Your task to perform on an android device: What's the weather today? Image 0: 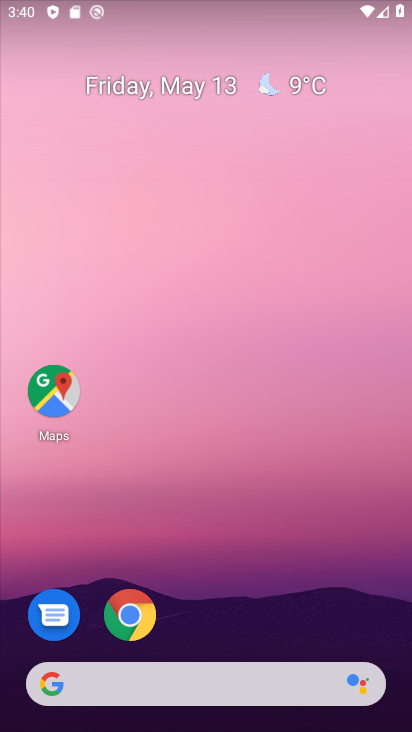
Step 0: drag from (206, 617) to (283, 112)
Your task to perform on an android device: What's the weather today? Image 1: 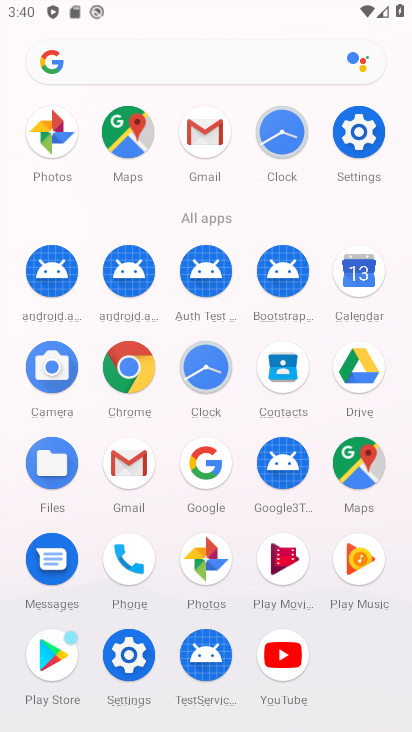
Step 1: click (131, 47)
Your task to perform on an android device: What's the weather today? Image 2: 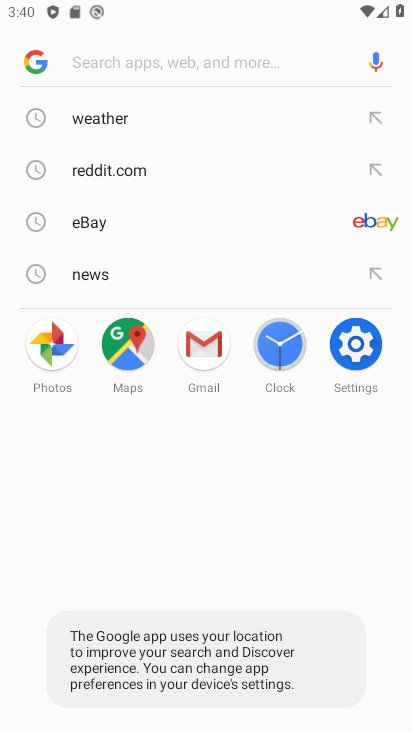
Step 2: click (113, 118)
Your task to perform on an android device: What's the weather today? Image 3: 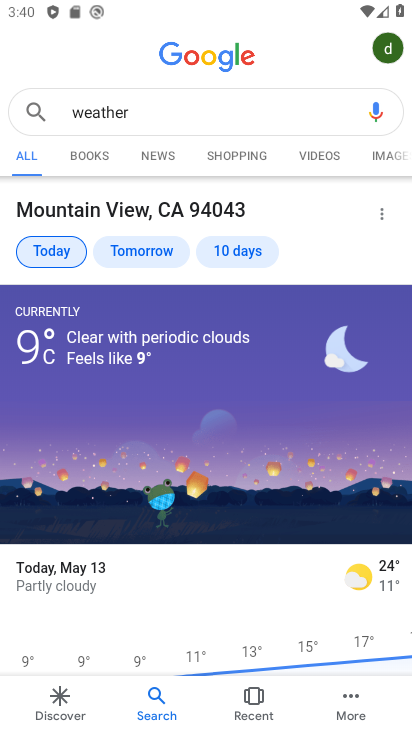
Step 3: task complete